Your task to perform on an android device: uninstall "Flipkart Online Shopping App" Image 0: 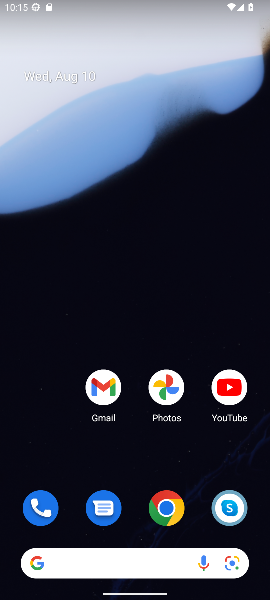
Step 0: drag from (161, 465) to (163, 213)
Your task to perform on an android device: uninstall "Flipkart Online Shopping App" Image 1: 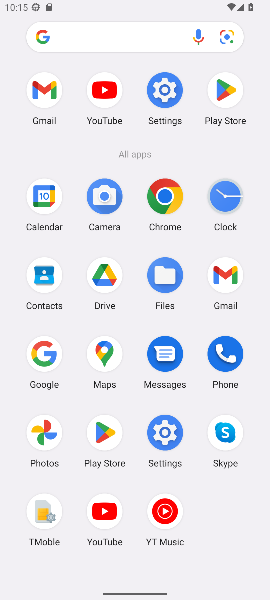
Step 1: click (221, 93)
Your task to perform on an android device: uninstall "Flipkart Online Shopping App" Image 2: 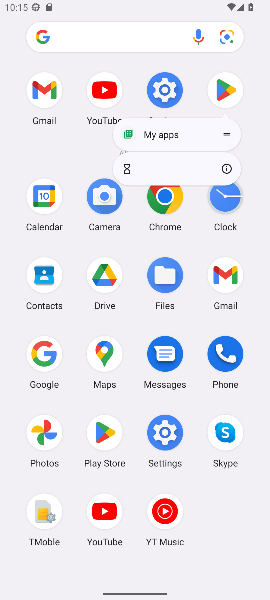
Step 2: click (218, 100)
Your task to perform on an android device: uninstall "Flipkart Online Shopping App" Image 3: 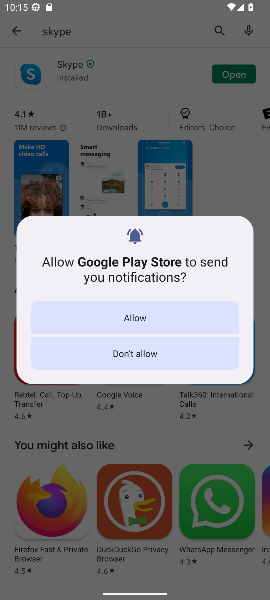
Step 3: click (219, 34)
Your task to perform on an android device: uninstall "Flipkart Online Shopping App" Image 4: 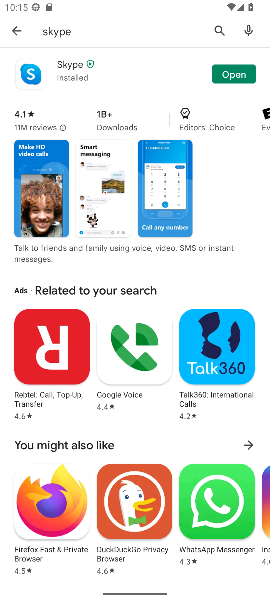
Step 4: click (221, 29)
Your task to perform on an android device: uninstall "Flipkart Online Shopping App" Image 5: 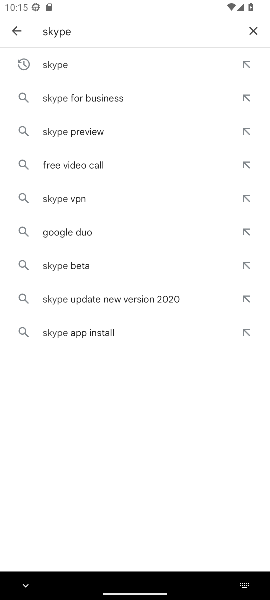
Step 5: click (256, 33)
Your task to perform on an android device: uninstall "Flipkart Online Shopping App" Image 6: 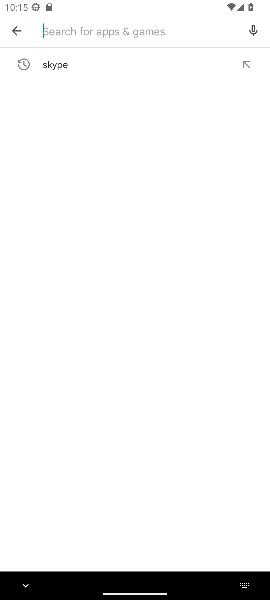
Step 6: type "Flipkart Online Shopping App"
Your task to perform on an android device: uninstall "Flipkart Online Shopping App" Image 7: 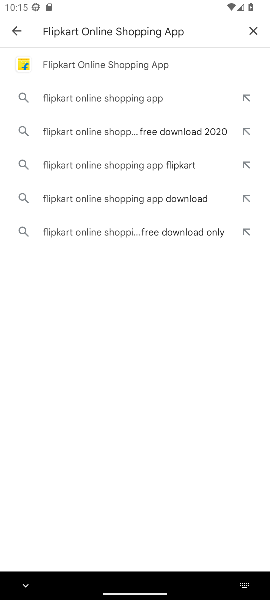
Step 7: click (66, 64)
Your task to perform on an android device: uninstall "Flipkart Online Shopping App" Image 8: 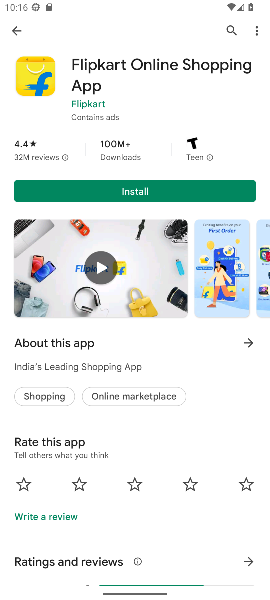
Step 8: click (151, 191)
Your task to perform on an android device: uninstall "Flipkart Online Shopping App" Image 9: 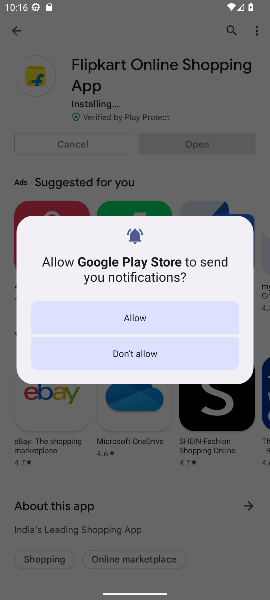
Step 9: task complete